Your task to perform on an android device: show emergency info Image 0: 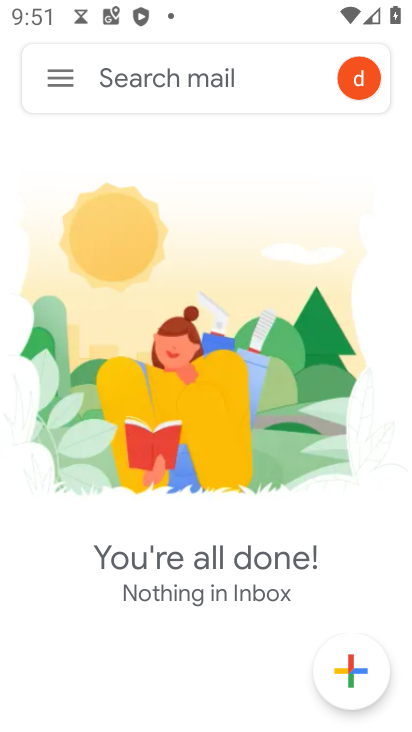
Step 0: press home button
Your task to perform on an android device: show emergency info Image 1: 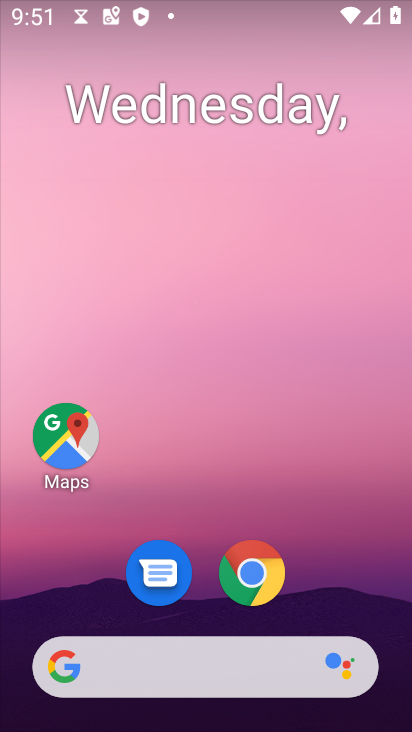
Step 1: drag from (330, 573) to (335, 215)
Your task to perform on an android device: show emergency info Image 2: 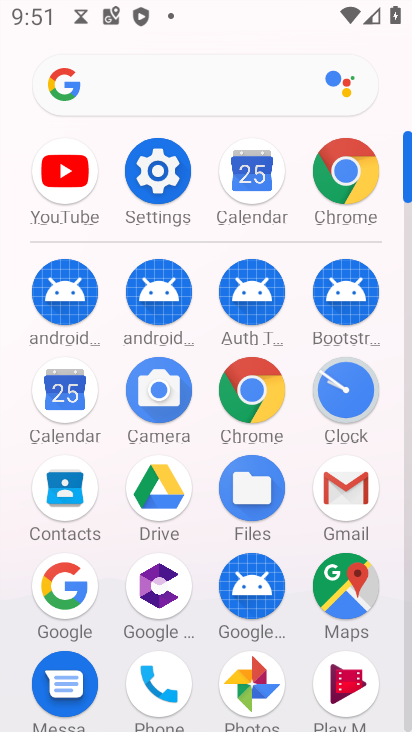
Step 2: click (142, 165)
Your task to perform on an android device: show emergency info Image 3: 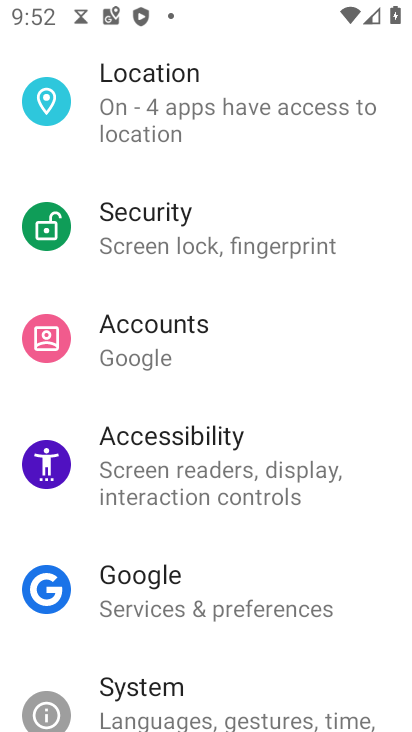
Step 3: drag from (273, 658) to (260, 197)
Your task to perform on an android device: show emergency info Image 4: 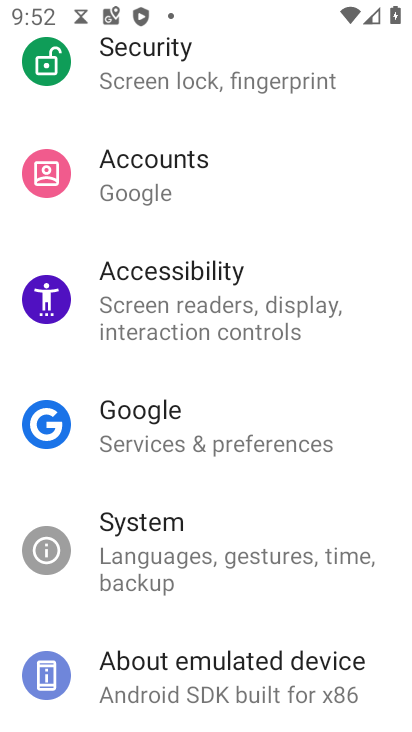
Step 4: click (221, 687)
Your task to perform on an android device: show emergency info Image 5: 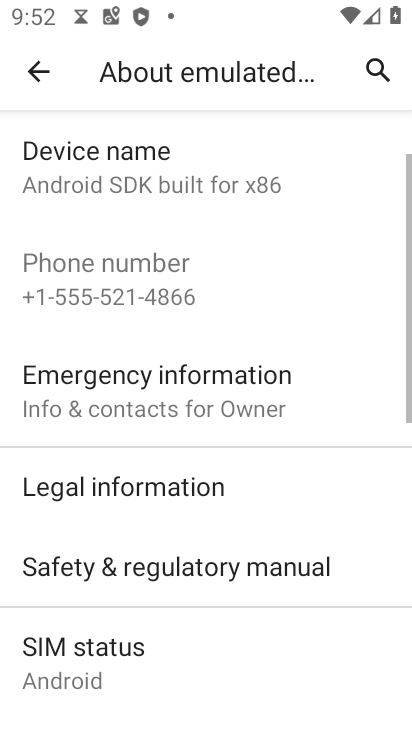
Step 5: click (179, 381)
Your task to perform on an android device: show emergency info Image 6: 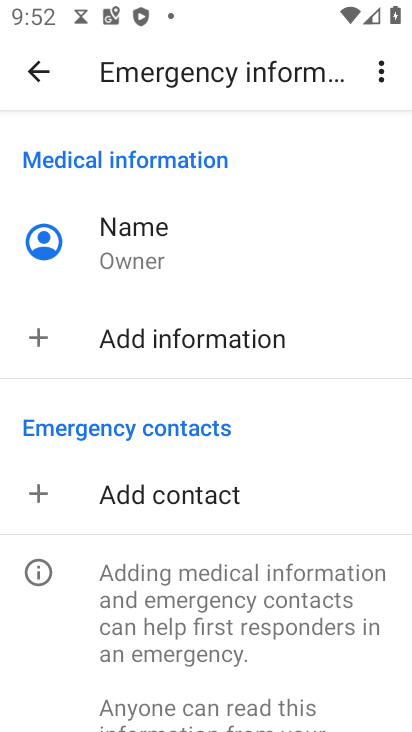
Step 6: task complete